Your task to perform on an android device: turn off improve location accuracy Image 0: 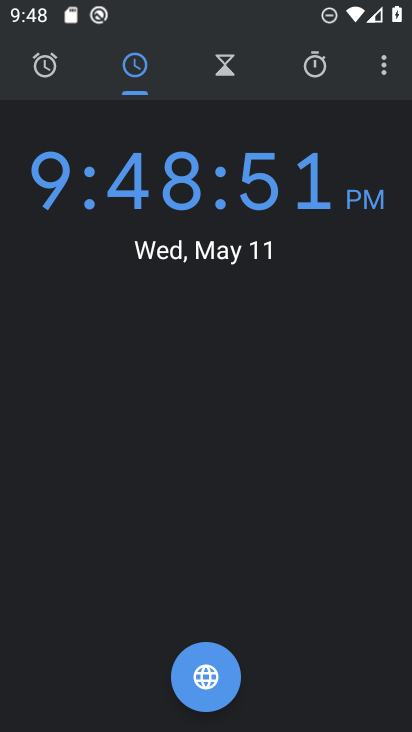
Step 0: press home button
Your task to perform on an android device: turn off improve location accuracy Image 1: 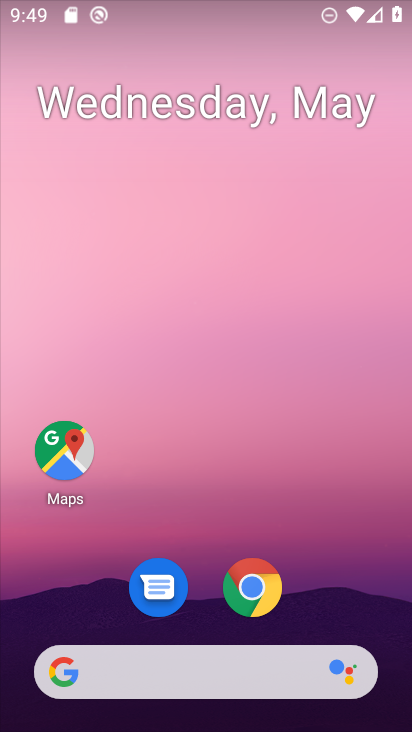
Step 1: drag from (200, 695) to (184, 97)
Your task to perform on an android device: turn off improve location accuracy Image 2: 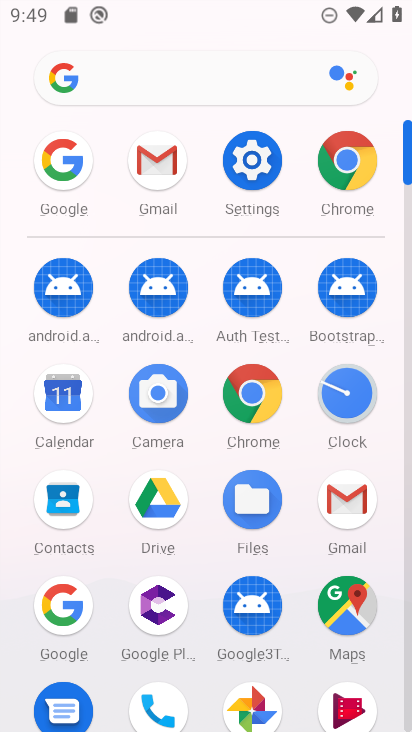
Step 2: click (256, 163)
Your task to perform on an android device: turn off improve location accuracy Image 3: 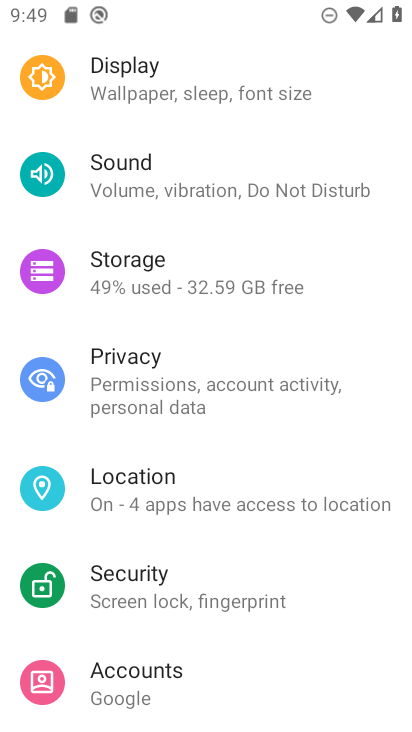
Step 3: click (139, 496)
Your task to perform on an android device: turn off improve location accuracy Image 4: 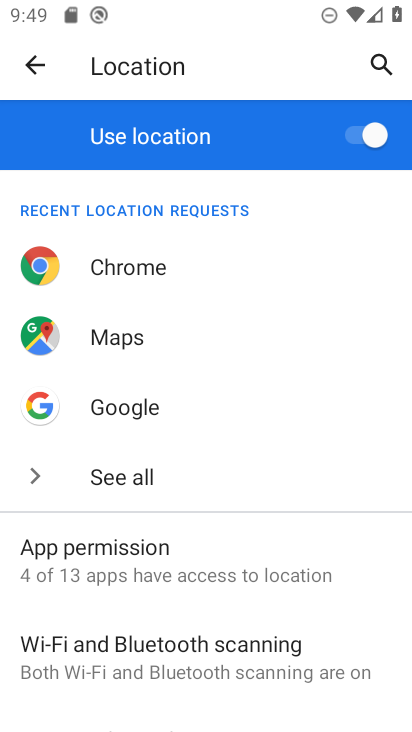
Step 4: drag from (114, 673) to (127, 315)
Your task to perform on an android device: turn off improve location accuracy Image 5: 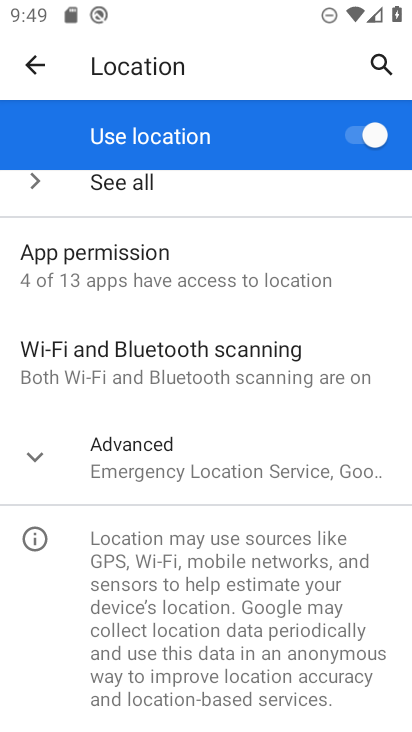
Step 5: click (164, 451)
Your task to perform on an android device: turn off improve location accuracy Image 6: 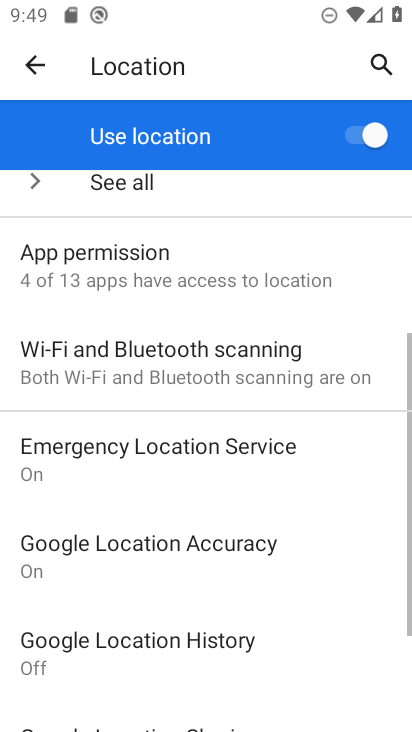
Step 6: drag from (195, 694) to (213, 459)
Your task to perform on an android device: turn off improve location accuracy Image 7: 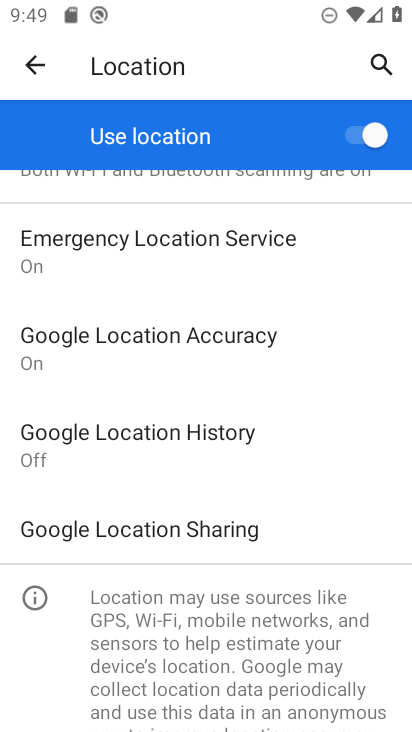
Step 7: click (193, 331)
Your task to perform on an android device: turn off improve location accuracy Image 8: 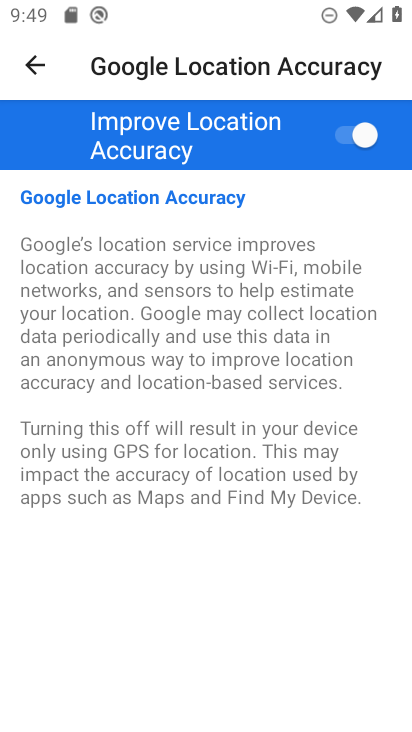
Step 8: click (346, 132)
Your task to perform on an android device: turn off improve location accuracy Image 9: 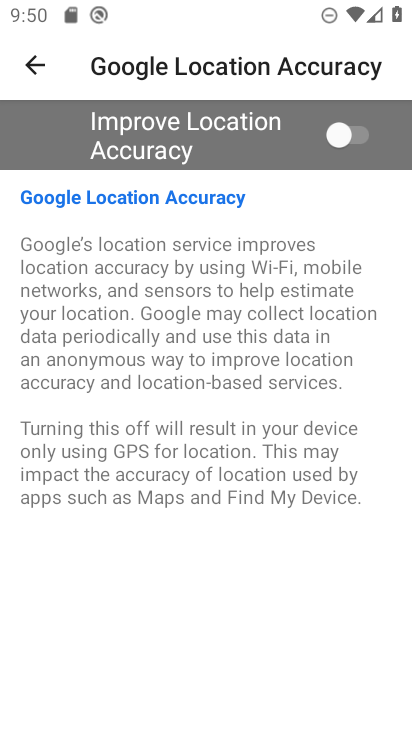
Step 9: task complete